Your task to perform on an android device: Go to Wikipedia Image 0: 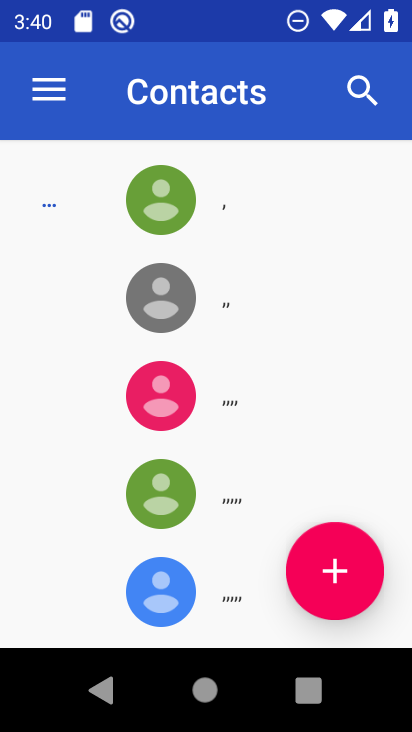
Step 0: click (249, 536)
Your task to perform on an android device: Go to Wikipedia Image 1: 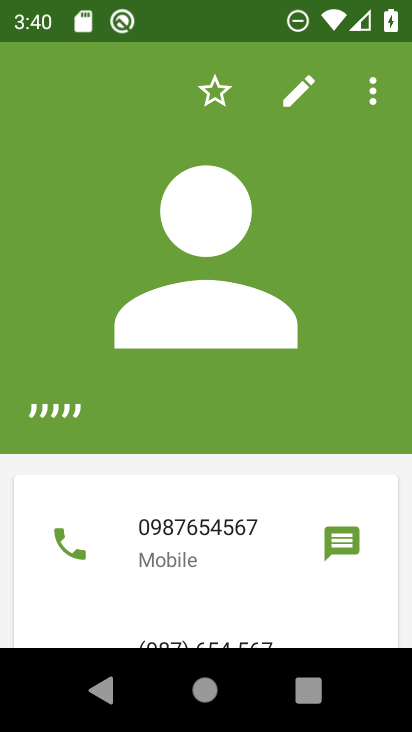
Step 1: press home button
Your task to perform on an android device: Go to Wikipedia Image 2: 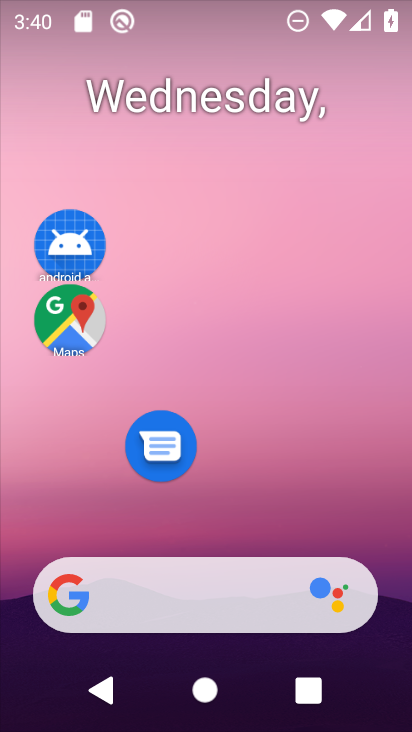
Step 2: drag from (279, 494) to (321, 52)
Your task to perform on an android device: Go to Wikipedia Image 3: 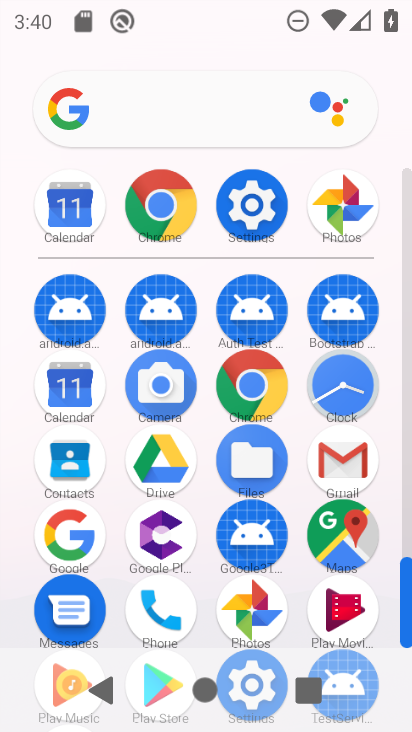
Step 3: click (149, 181)
Your task to perform on an android device: Go to Wikipedia Image 4: 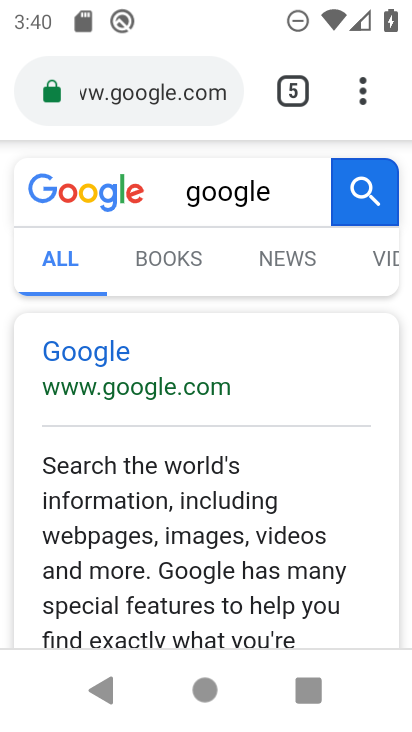
Step 4: click (158, 114)
Your task to perform on an android device: Go to Wikipedia Image 5: 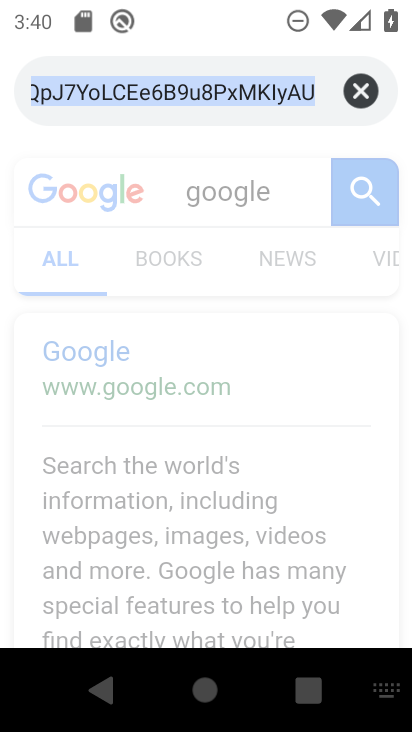
Step 5: type "w"
Your task to perform on an android device: Go to Wikipedia Image 6: 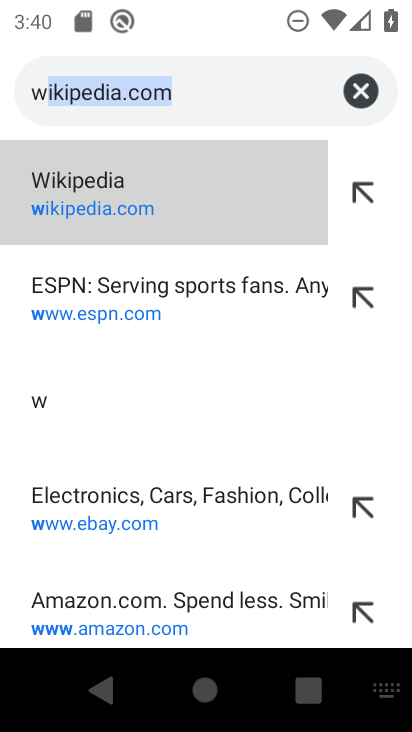
Step 6: click (156, 215)
Your task to perform on an android device: Go to Wikipedia Image 7: 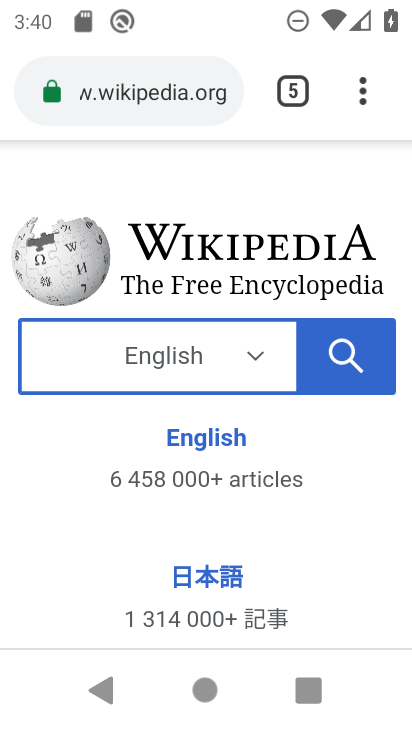
Step 7: task complete